Your task to perform on an android device: turn off javascript in the chrome app Image 0: 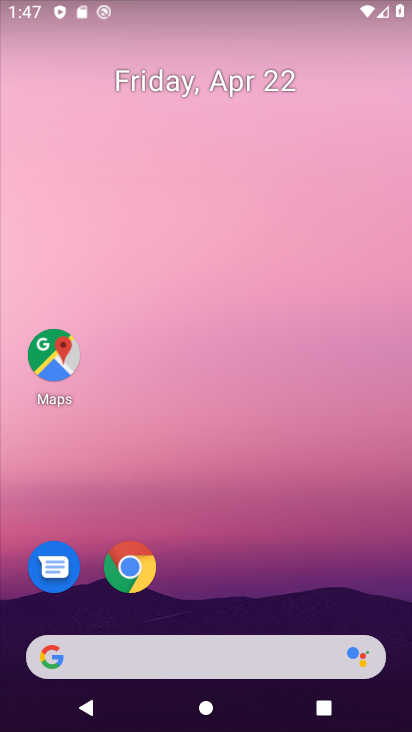
Step 0: click (127, 578)
Your task to perform on an android device: turn off javascript in the chrome app Image 1: 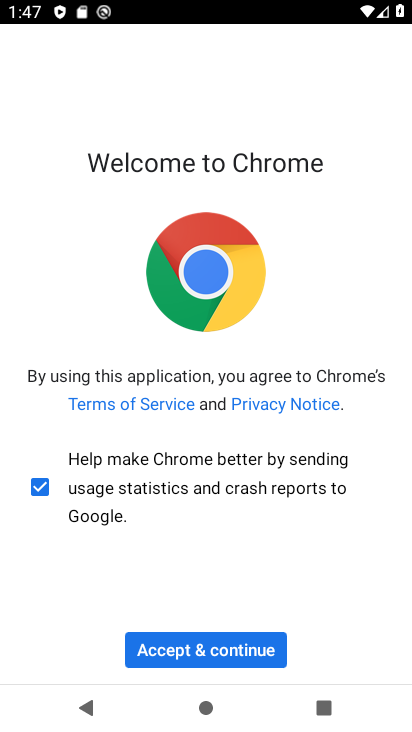
Step 1: click (222, 657)
Your task to perform on an android device: turn off javascript in the chrome app Image 2: 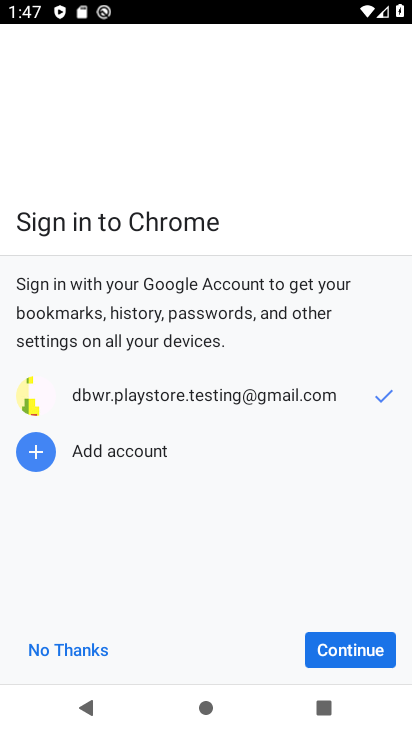
Step 2: click (359, 656)
Your task to perform on an android device: turn off javascript in the chrome app Image 3: 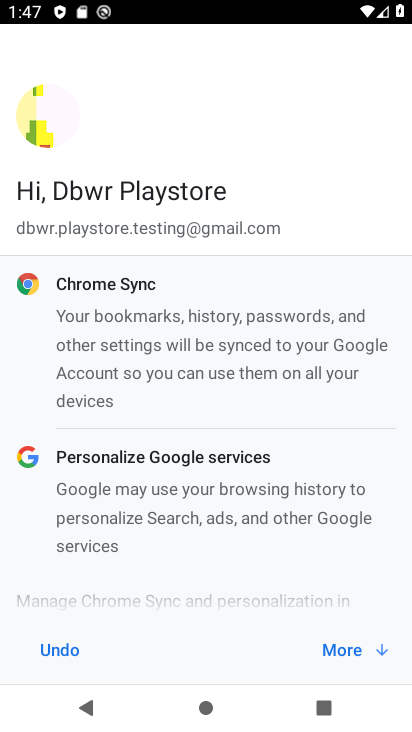
Step 3: click (359, 656)
Your task to perform on an android device: turn off javascript in the chrome app Image 4: 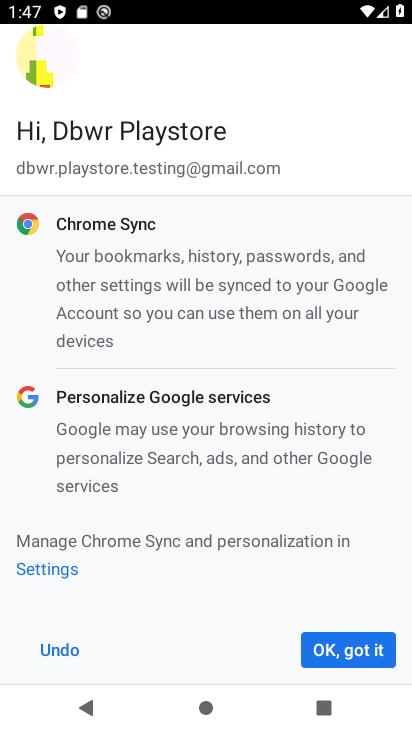
Step 4: click (352, 653)
Your task to perform on an android device: turn off javascript in the chrome app Image 5: 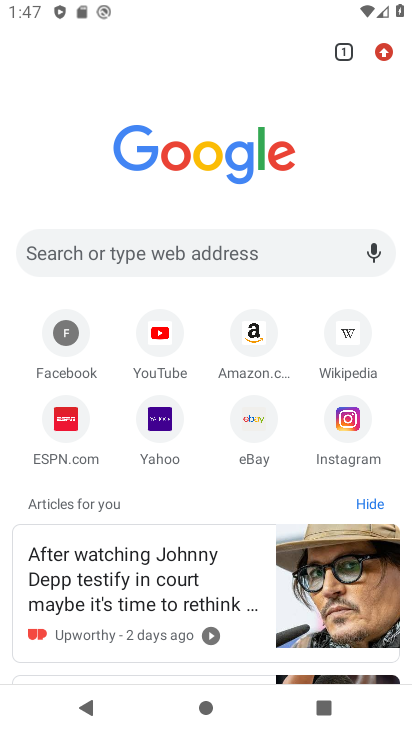
Step 5: click (389, 60)
Your task to perform on an android device: turn off javascript in the chrome app Image 6: 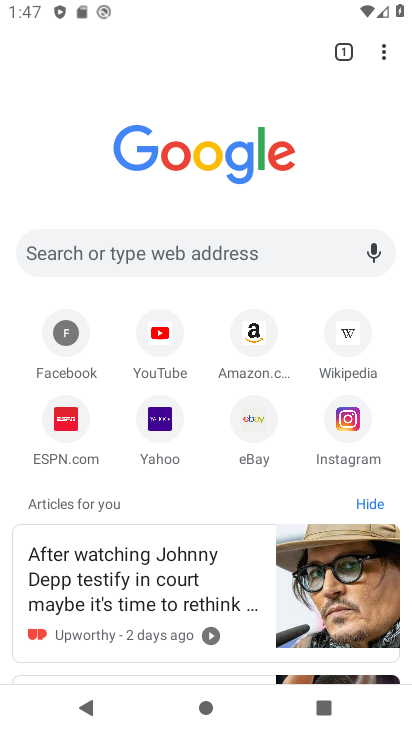
Step 6: click (386, 48)
Your task to perform on an android device: turn off javascript in the chrome app Image 7: 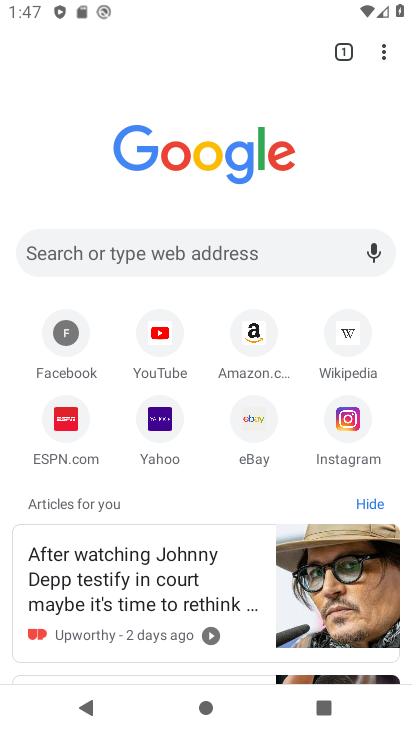
Step 7: click (382, 52)
Your task to perform on an android device: turn off javascript in the chrome app Image 8: 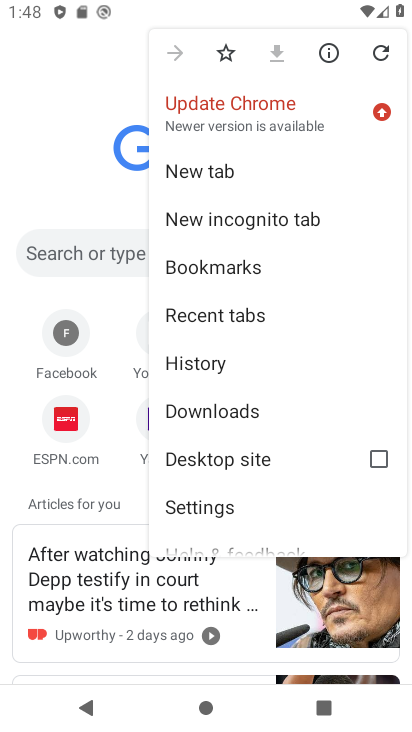
Step 8: click (222, 504)
Your task to perform on an android device: turn off javascript in the chrome app Image 9: 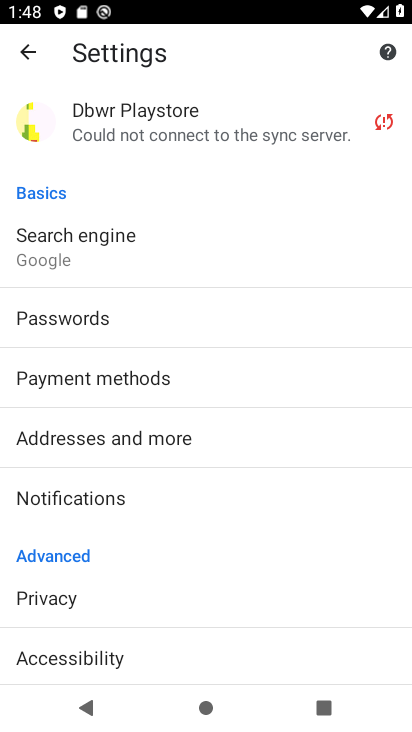
Step 9: drag from (193, 572) to (233, 210)
Your task to perform on an android device: turn off javascript in the chrome app Image 10: 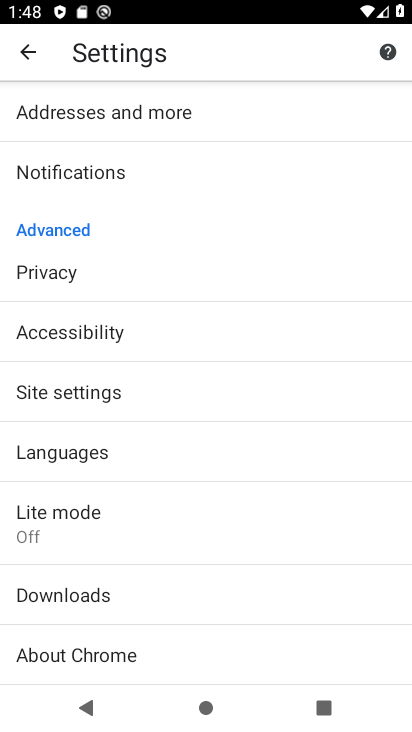
Step 10: click (175, 362)
Your task to perform on an android device: turn off javascript in the chrome app Image 11: 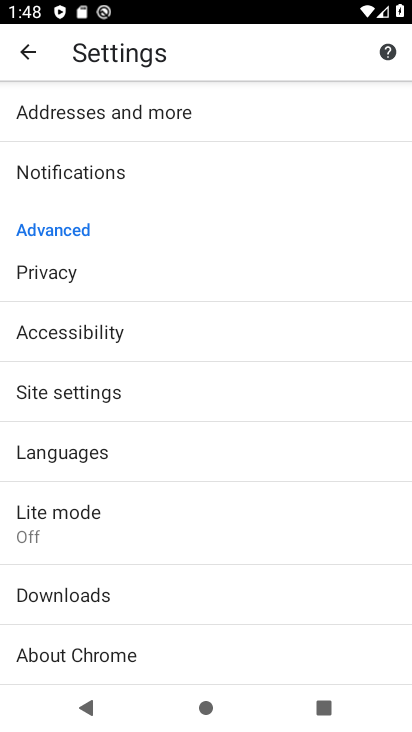
Step 11: click (174, 378)
Your task to perform on an android device: turn off javascript in the chrome app Image 12: 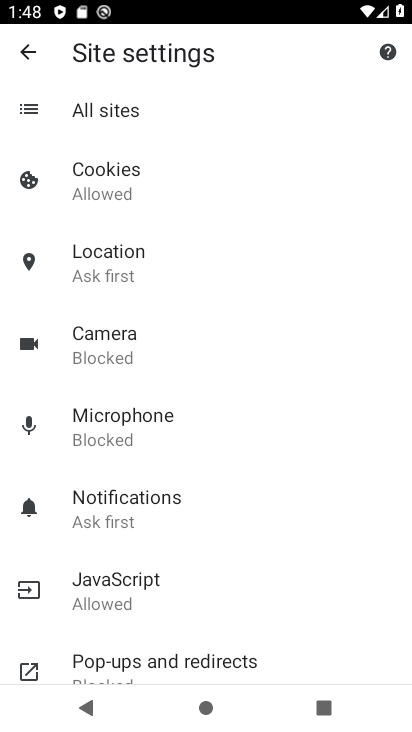
Step 12: click (177, 589)
Your task to perform on an android device: turn off javascript in the chrome app Image 13: 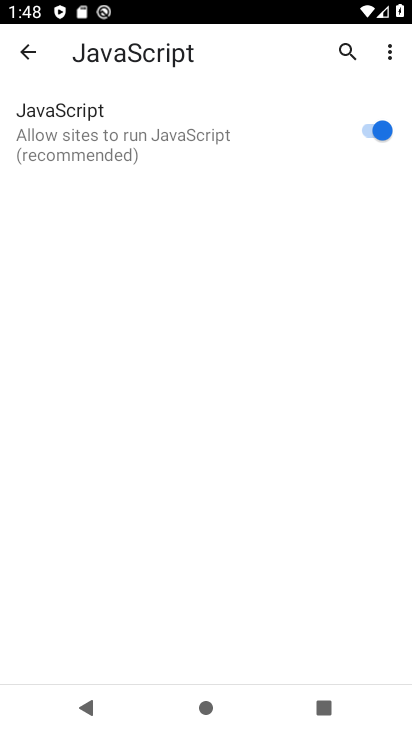
Step 13: click (361, 127)
Your task to perform on an android device: turn off javascript in the chrome app Image 14: 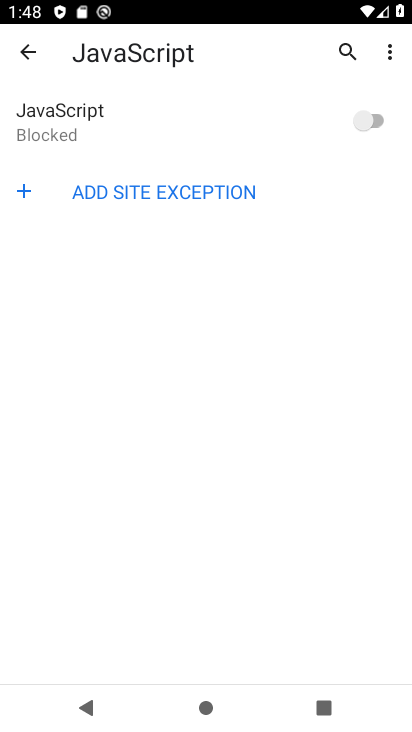
Step 14: task complete